Your task to perform on an android device: Show the shopping cart on bestbuy. Search for bose soundlink mini on bestbuy, select the first entry, add it to the cart, then select checkout. Image 0: 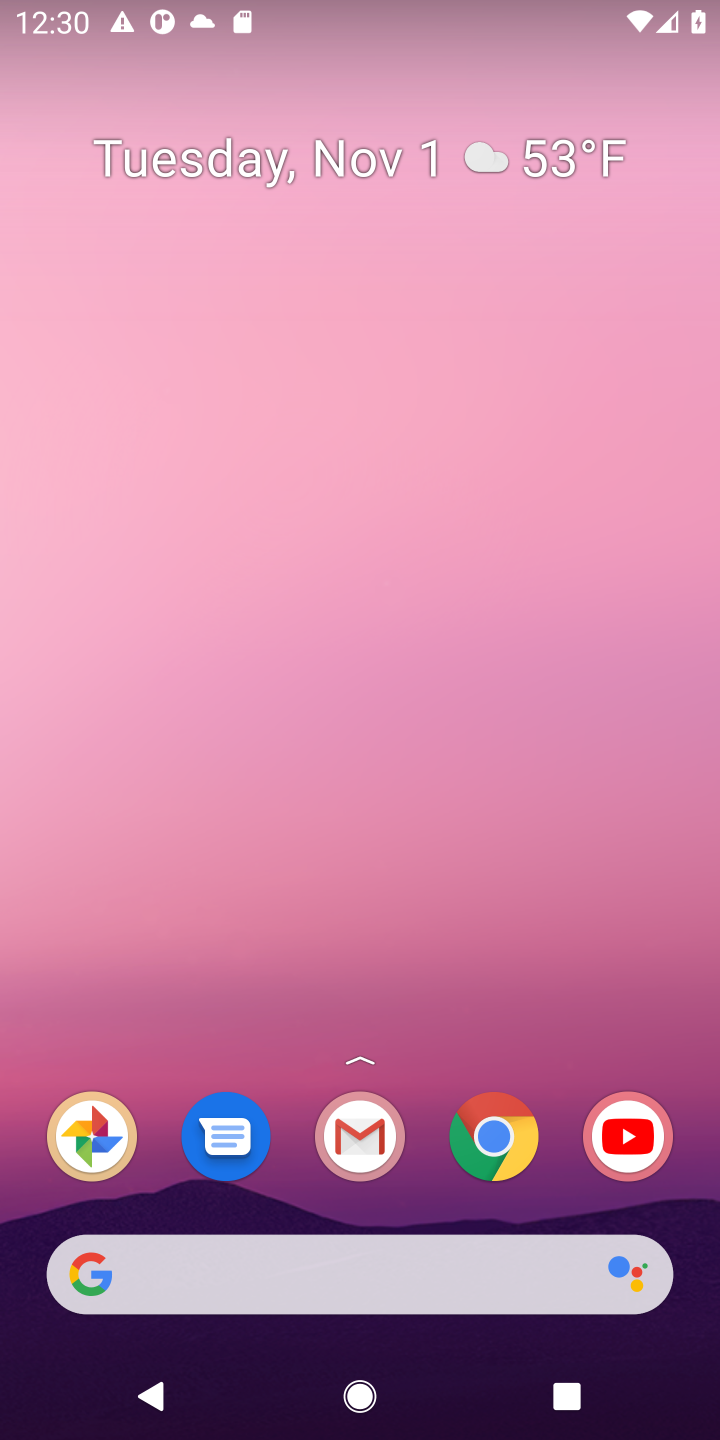
Step 0: press home button
Your task to perform on an android device: Show the shopping cart on bestbuy. Search for bose soundlink mini on bestbuy, select the first entry, add it to the cart, then select checkout. Image 1: 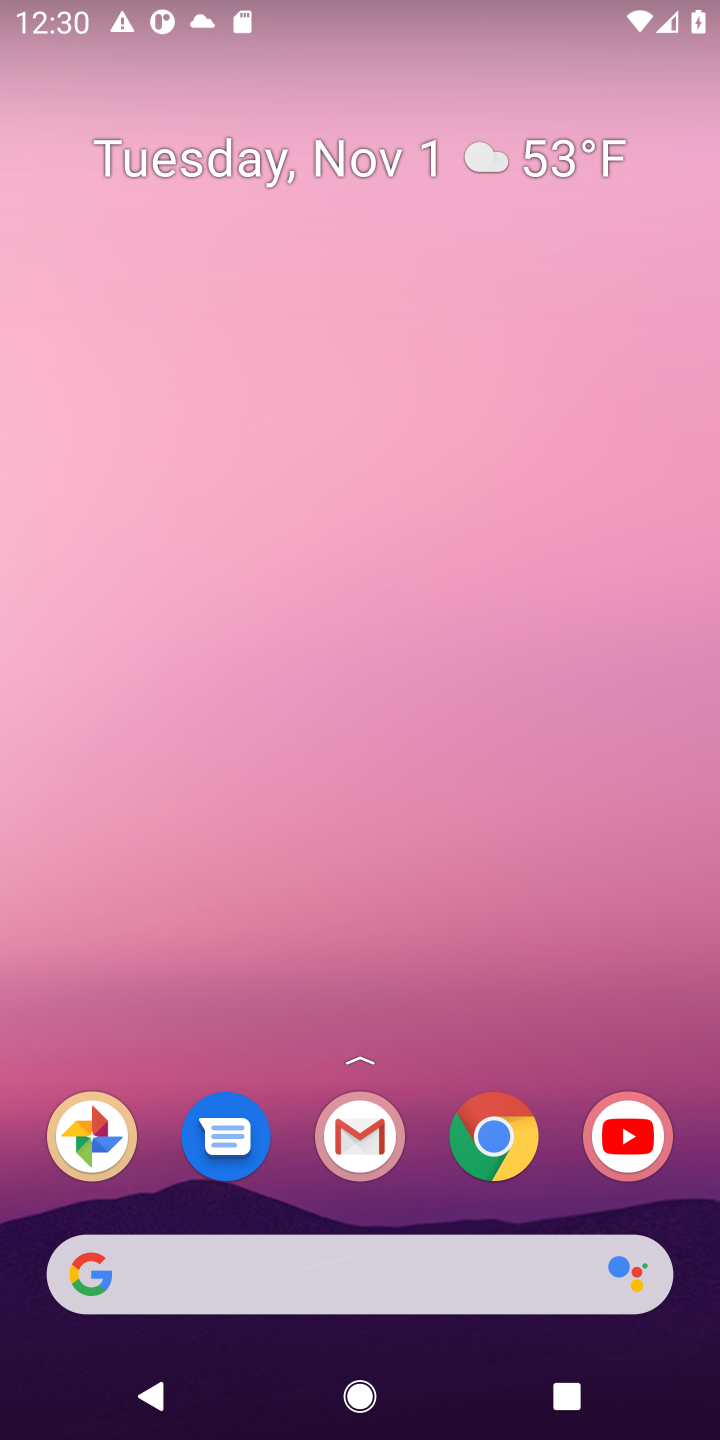
Step 1: press home button
Your task to perform on an android device: Show the shopping cart on bestbuy. Search for bose soundlink mini on bestbuy, select the first entry, add it to the cart, then select checkout. Image 2: 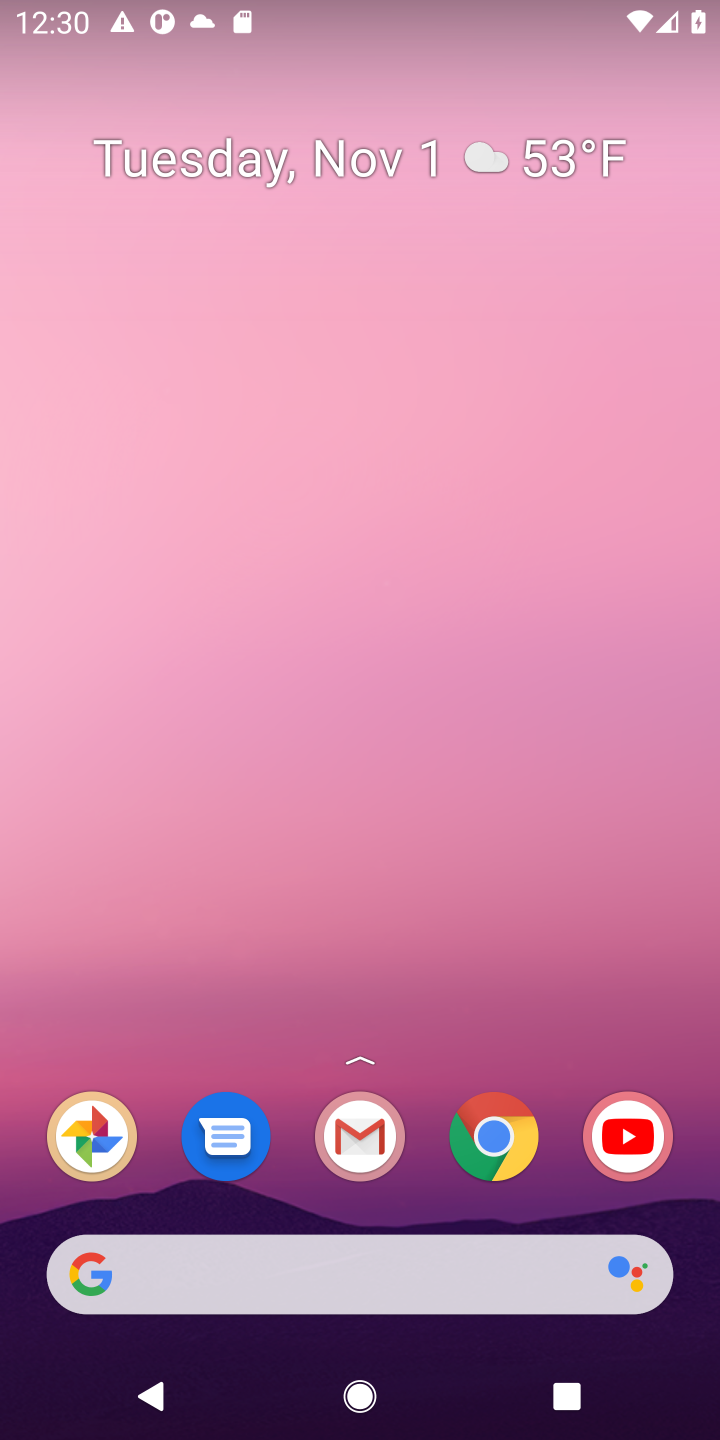
Step 2: click (145, 1265)
Your task to perform on an android device: Show the shopping cart on bestbuy. Search for bose soundlink mini on bestbuy, select the first entry, add it to the cart, then select checkout. Image 3: 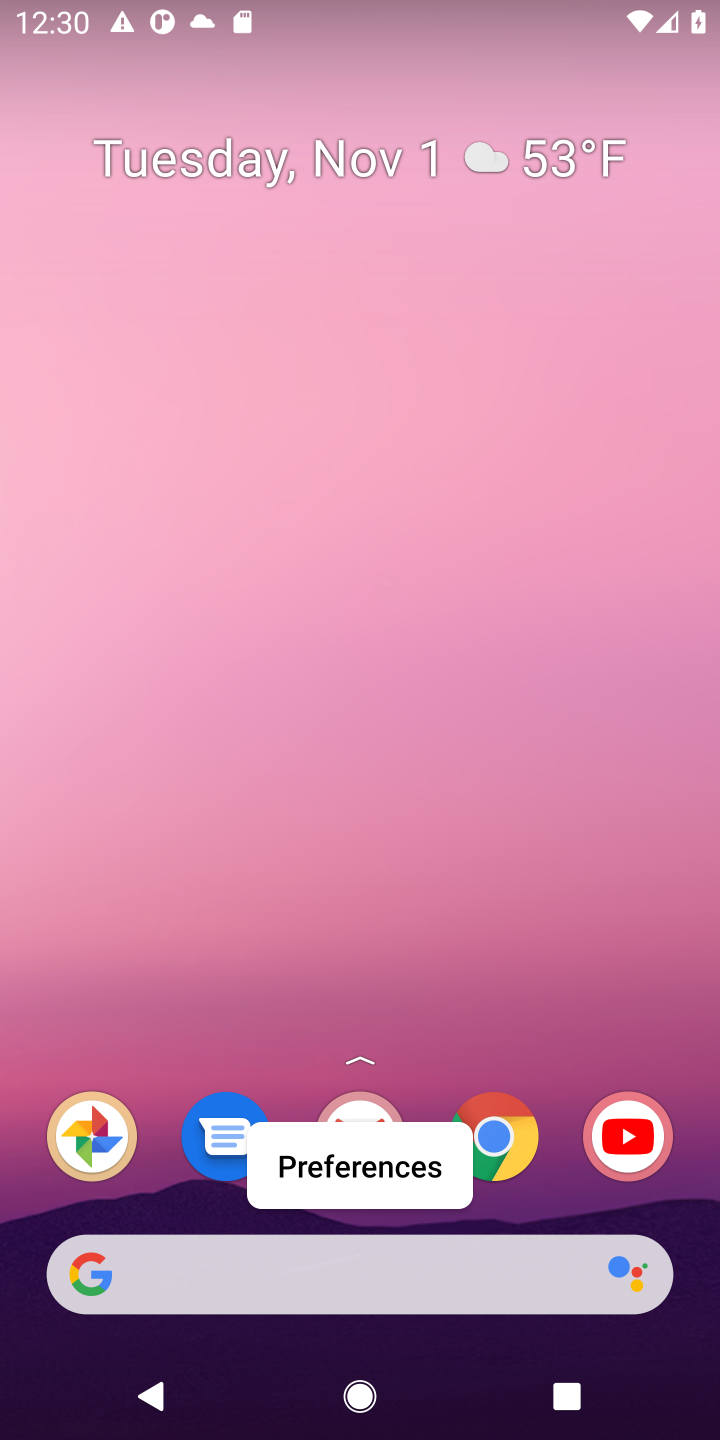
Step 3: click (145, 1265)
Your task to perform on an android device: Show the shopping cart on bestbuy. Search for bose soundlink mini on bestbuy, select the first entry, add it to the cart, then select checkout. Image 4: 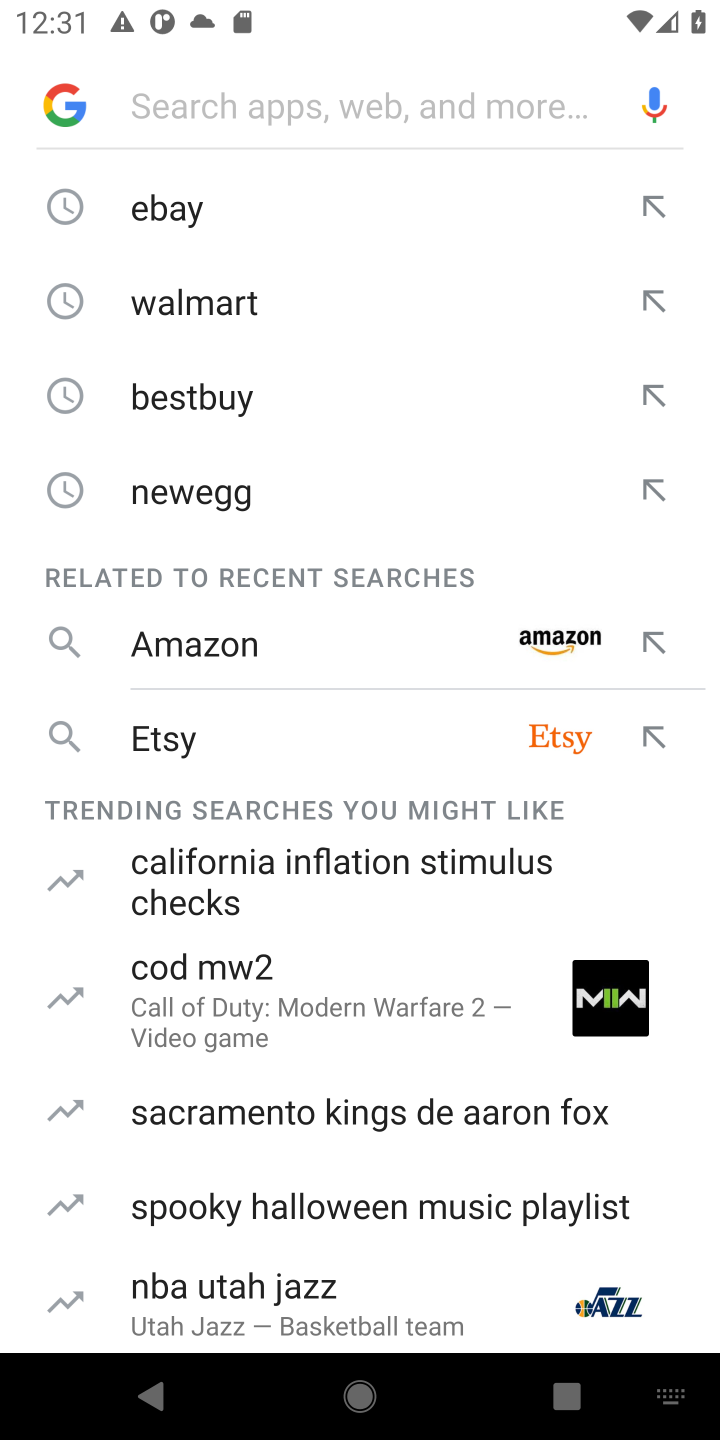
Step 4: type "bestbuy"
Your task to perform on an android device: Show the shopping cart on bestbuy. Search for bose soundlink mini on bestbuy, select the first entry, add it to the cart, then select checkout. Image 5: 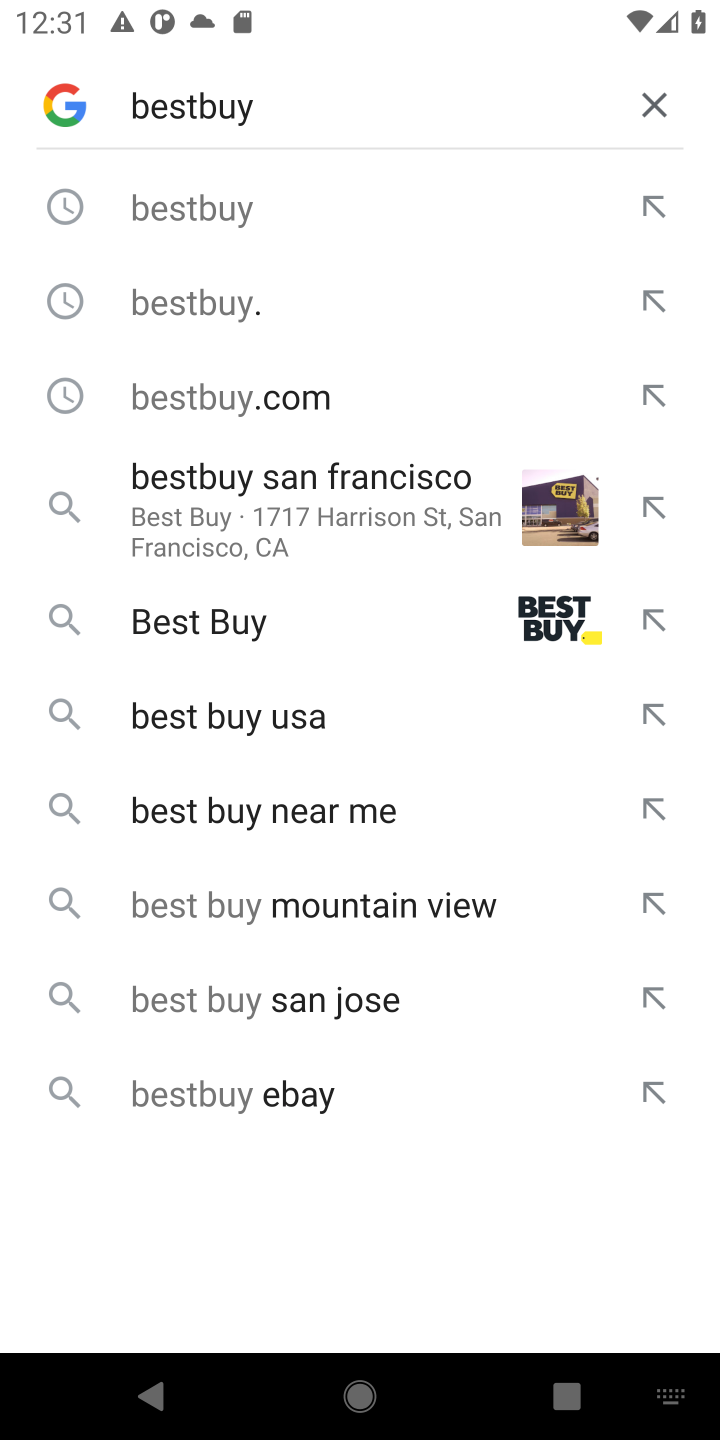
Step 5: press enter
Your task to perform on an android device: Show the shopping cart on bestbuy. Search for bose soundlink mini on bestbuy, select the first entry, add it to the cart, then select checkout. Image 6: 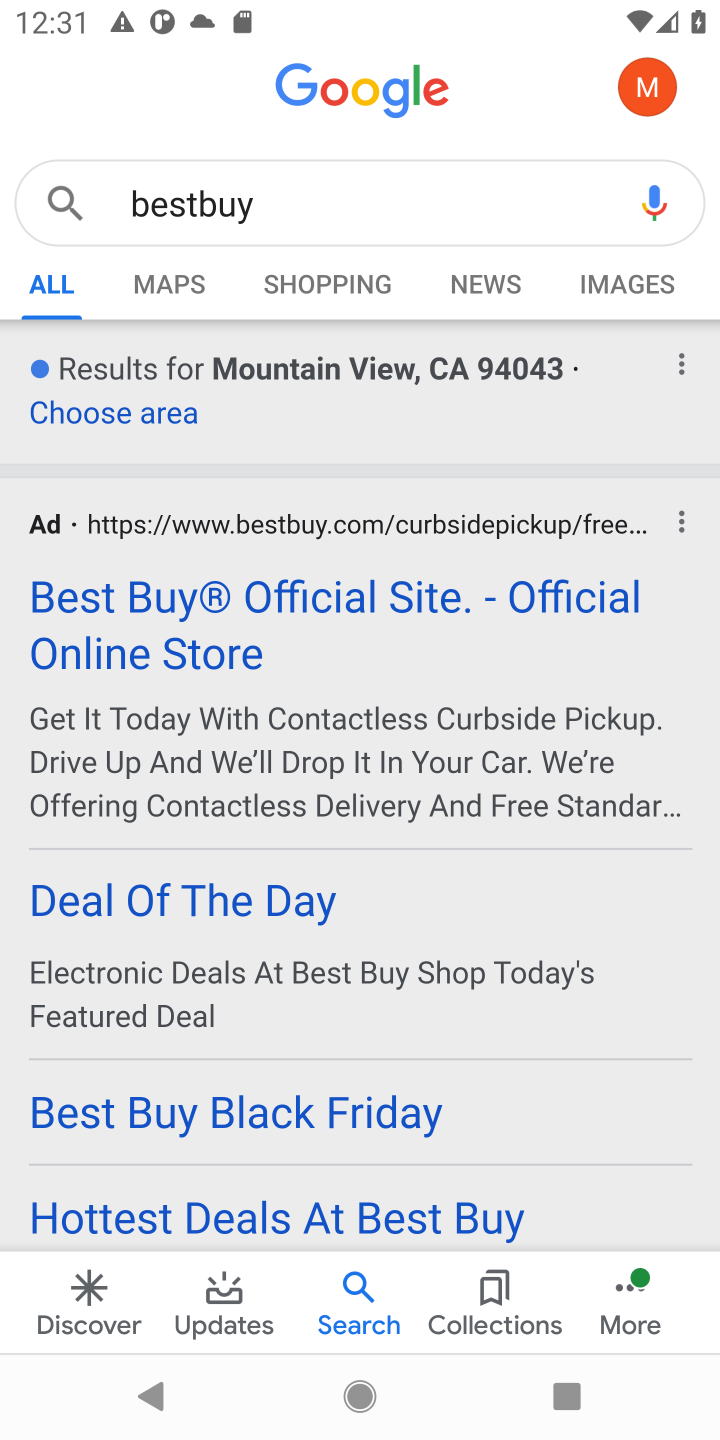
Step 6: click (174, 596)
Your task to perform on an android device: Show the shopping cart on bestbuy. Search for bose soundlink mini on bestbuy, select the first entry, add it to the cart, then select checkout. Image 7: 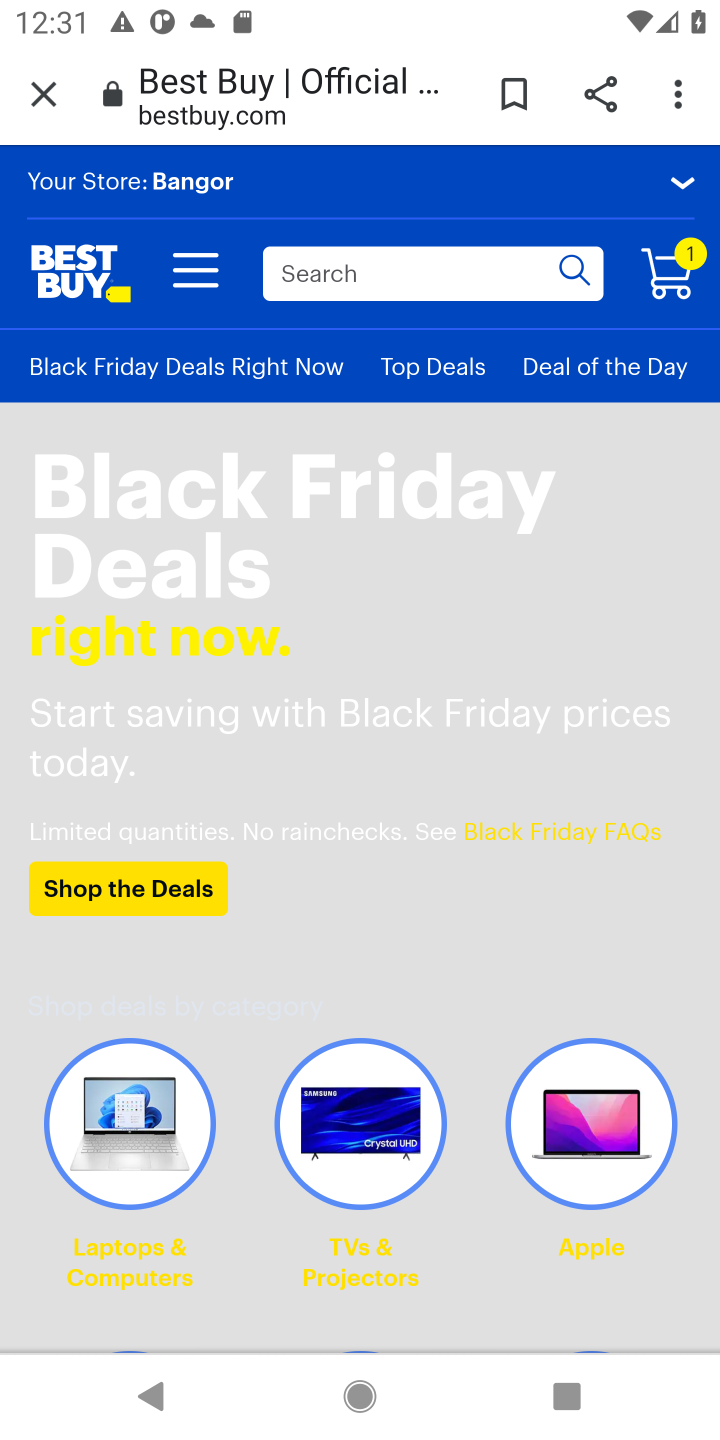
Step 7: click (326, 272)
Your task to perform on an android device: Show the shopping cart on bestbuy. Search for bose soundlink mini on bestbuy, select the first entry, add it to the cart, then select checkout. Image 8: 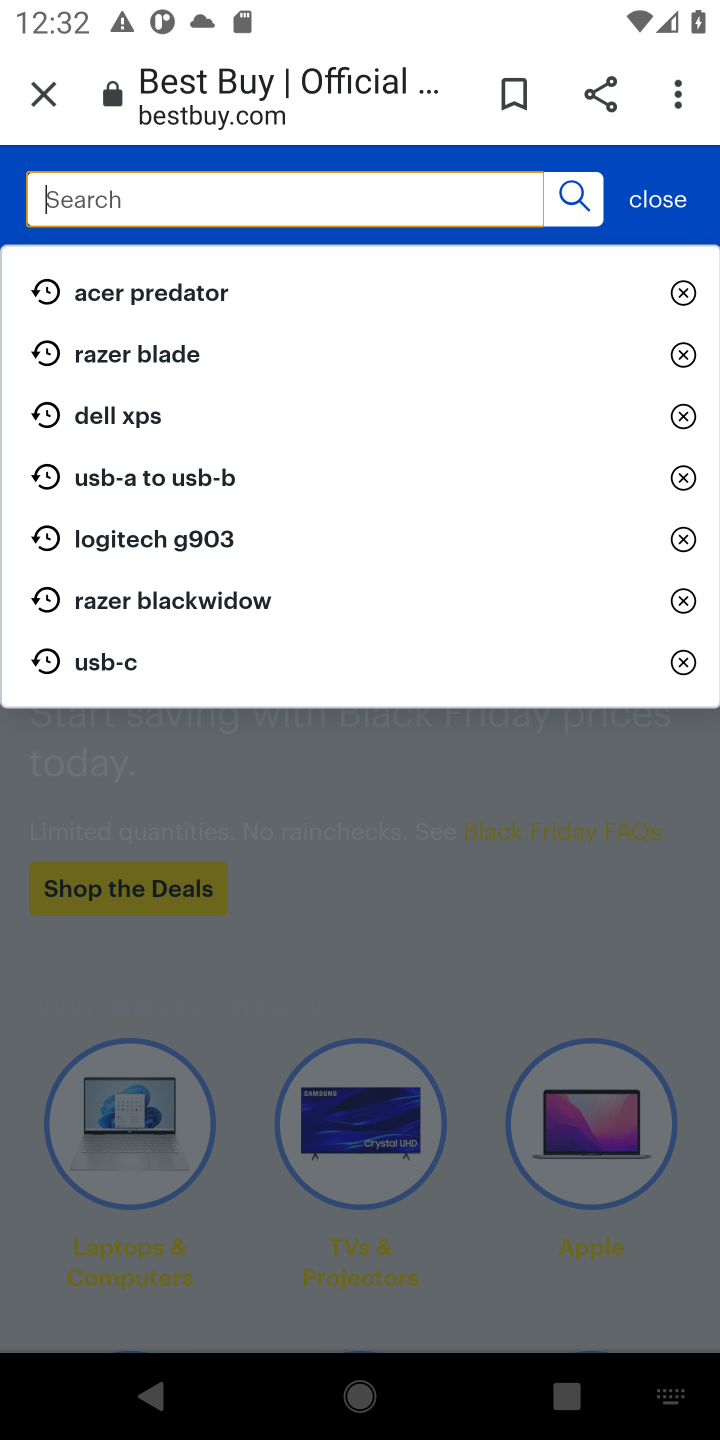
Step 8: type "bose soundlink mini"
Your task to perform on an android device: Show the shopping cart on bestbuy. Search for bose soundlink mini on bestbuy, select the first entry, add it to the cart, then select checkout. Image 9: 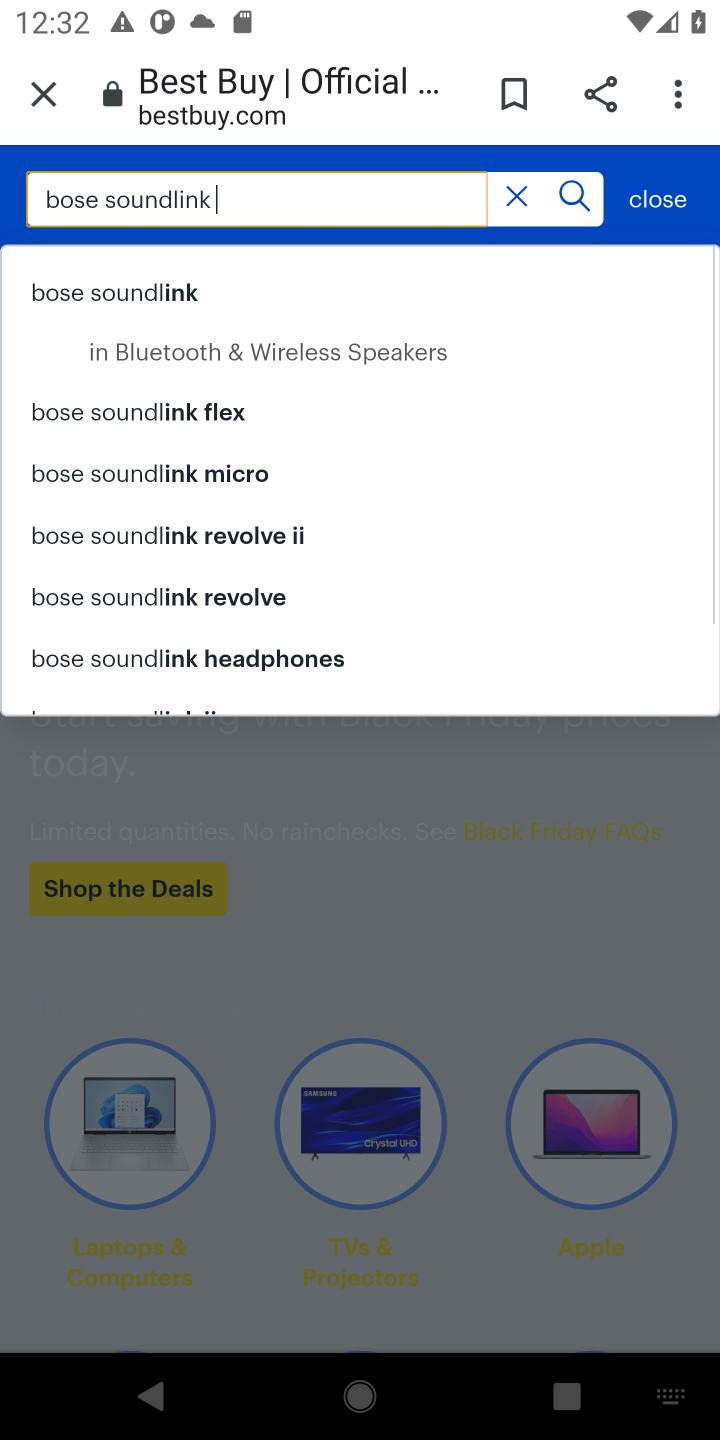
Step 9: press enter
Your task to perform on an android device: Show the shopping cart on bestbuy. Search for bose soundlink mini on bestbuy, select the first entry, add it to the cart, then select checkout. Image 10: 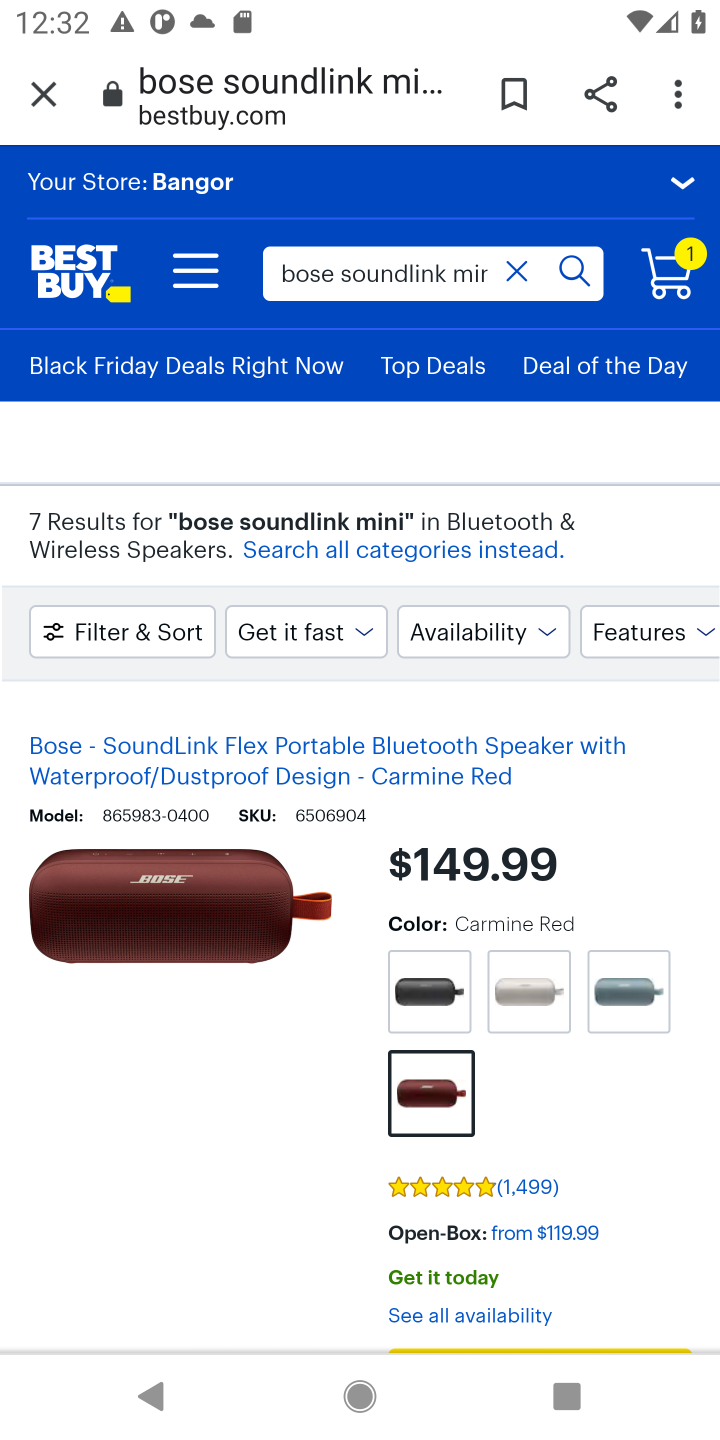
Step 10: drag from (196, 1134) to (245, 769)
Your task to perform on an android device: Show the shopping cart on bestbuy. Search for bose soundlink mini on bestbuy, select the first entry, add it to the cart, then select checkout. Image 11: 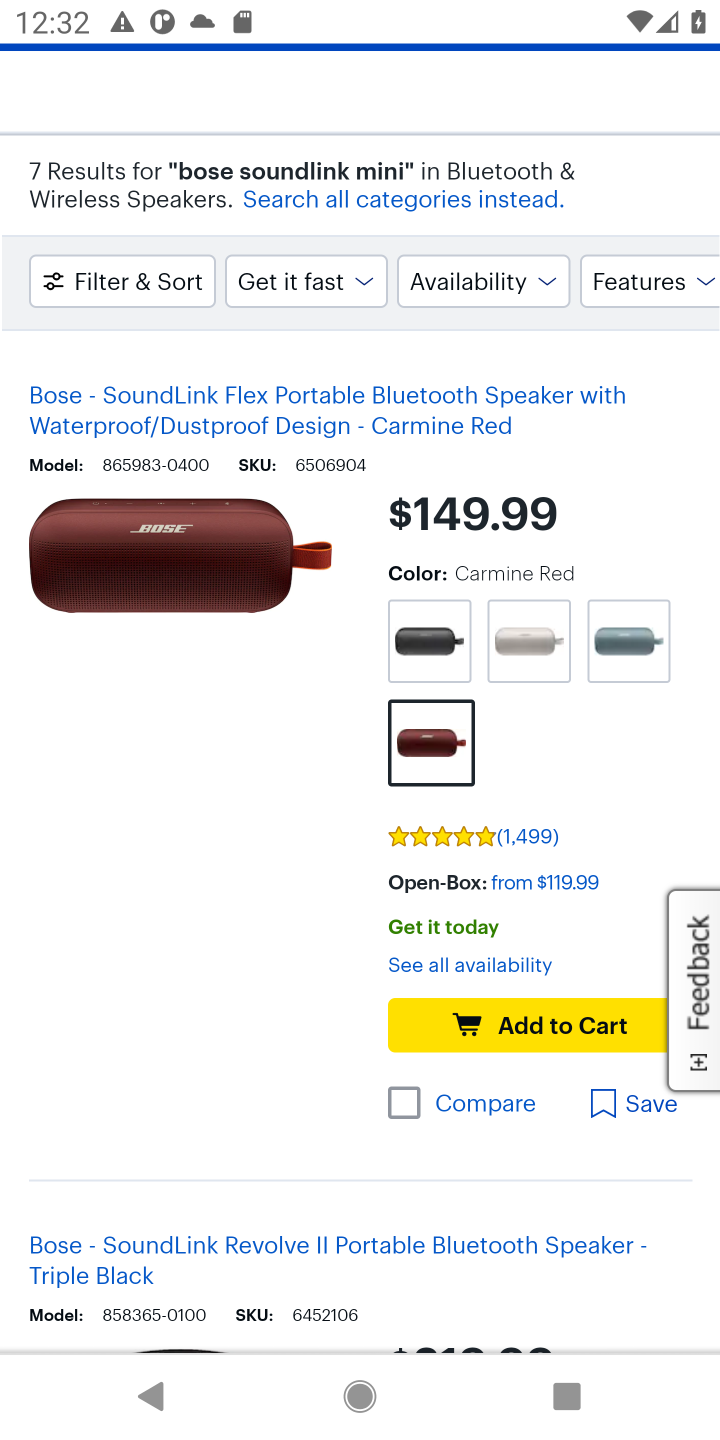
Step 11: drag from (249, 1002) to (293, 604)
Your task to perform on an android device: Show the shopping cart on bestbuy. Search for bose soundlink mini on bestbuy, select the first entry, add it to the cart, then select checkout. Image 12: 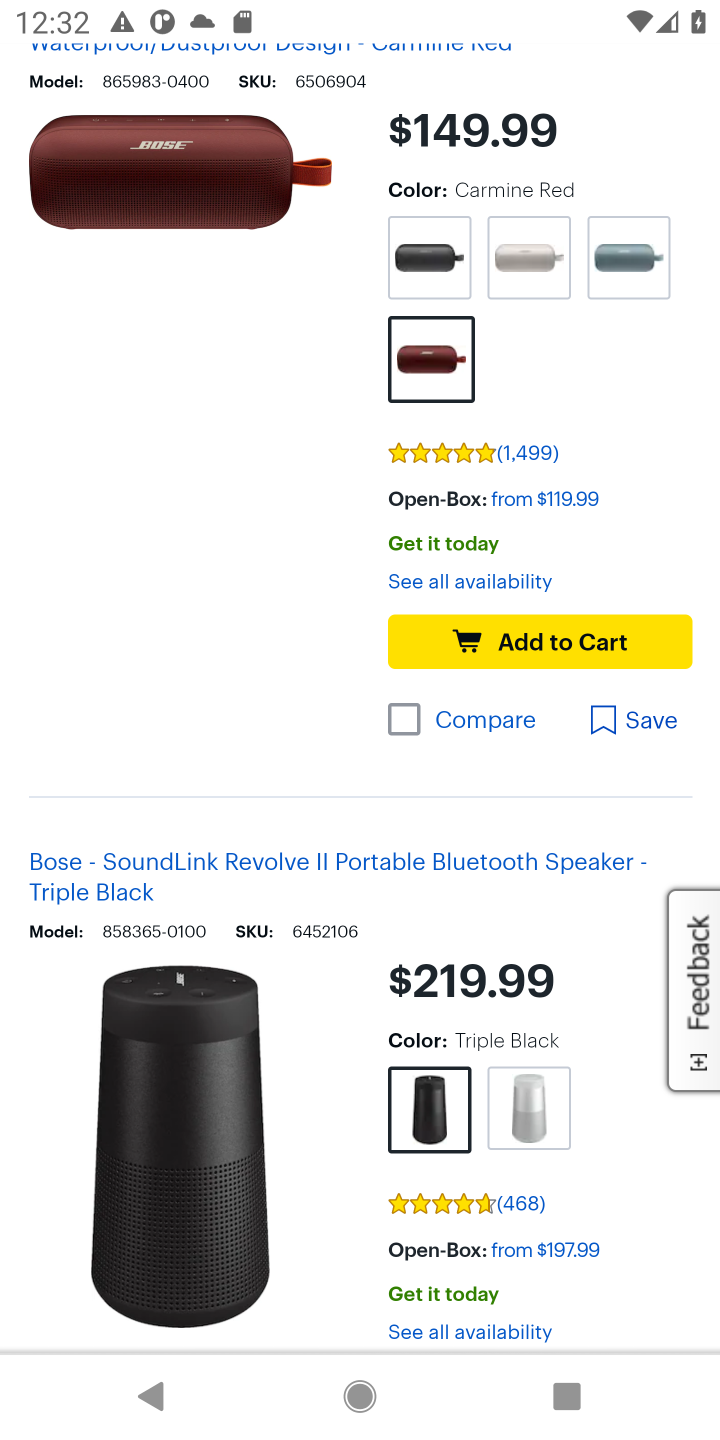
Step 12: click (539, 720)
Your task to perform on an android device: Show the shopping cart on bestbuy. Search for bose soundlink mini on bestbuy, select the first entry, add it to the cart, then select checkout. Image 13: 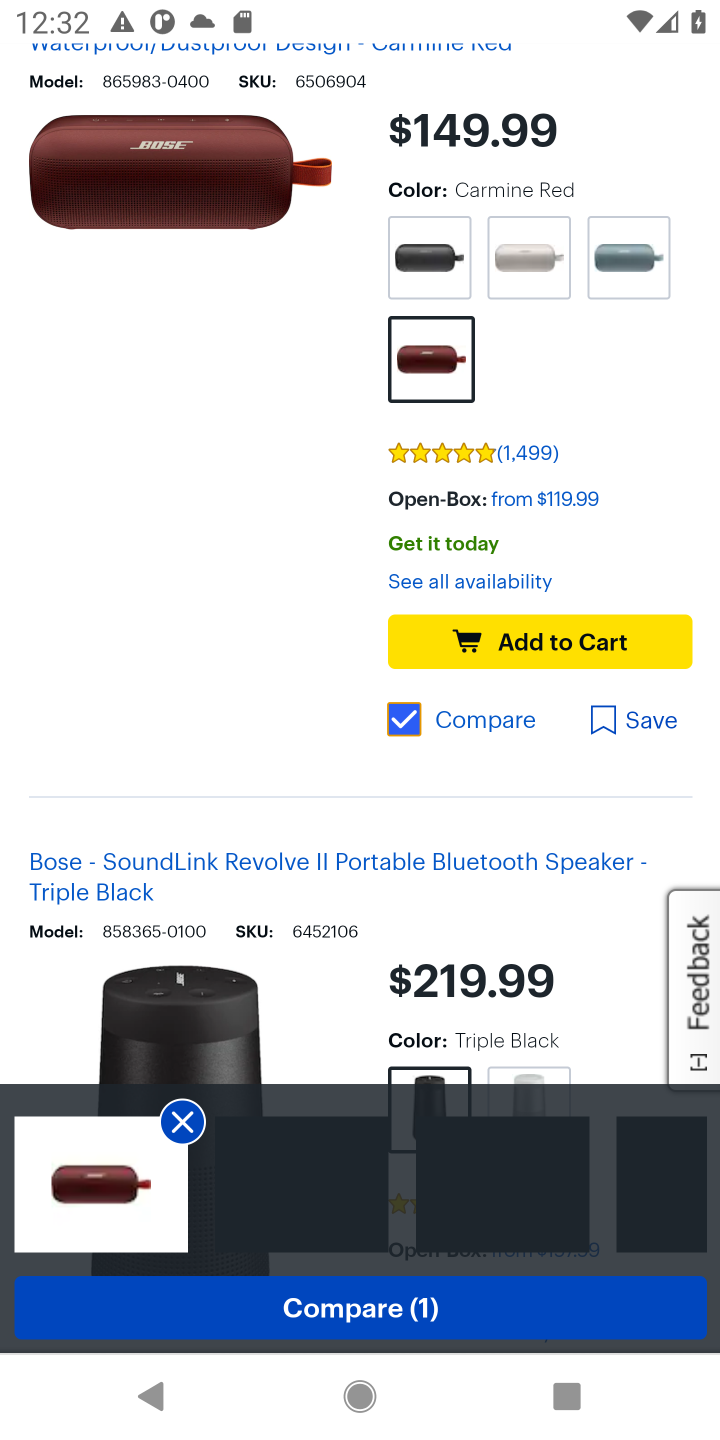
Step 13: click (550, 640)
Your task to perform on an android device: Show the shopping cart on bestbuy. Search for bose soundlink mini on bestbuy, select the first entry, add it to the cart, then select checkout. Image 14: 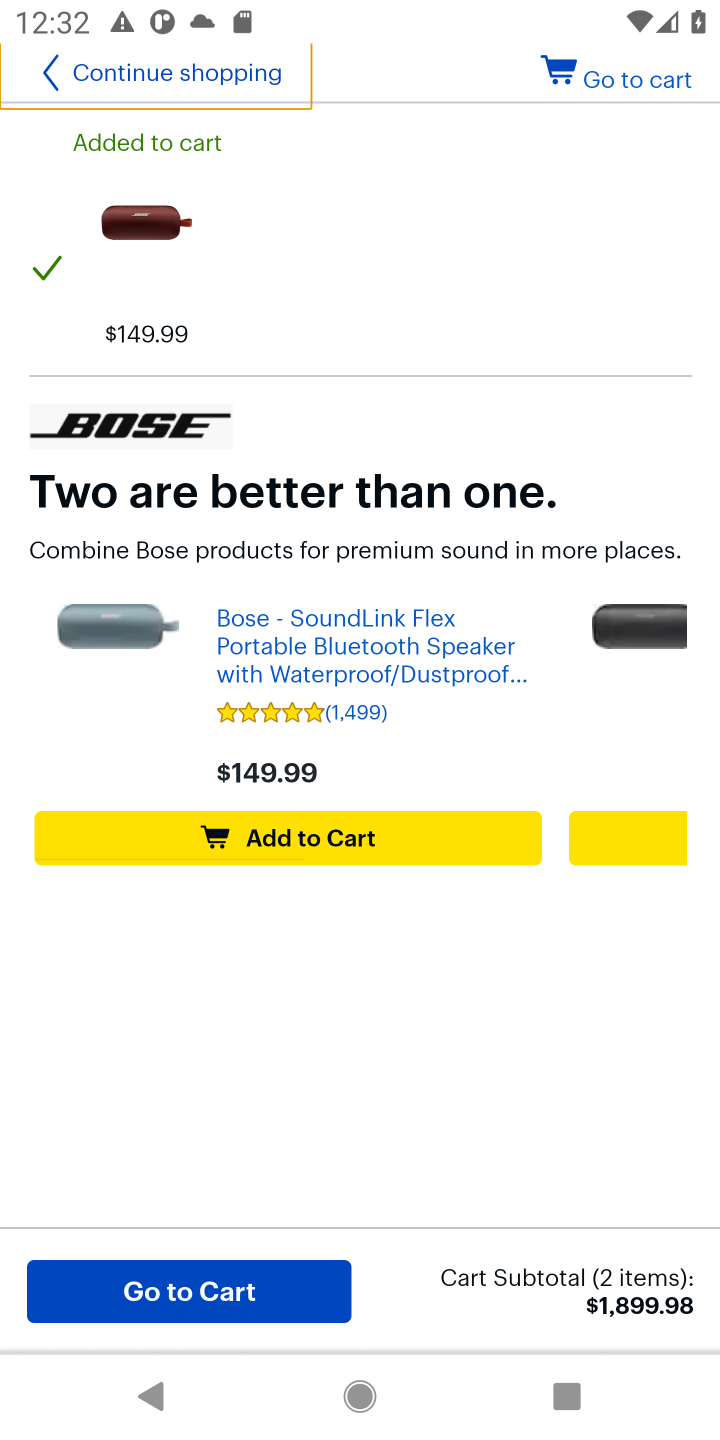
Step 14: click (154, 1286)
Your task to perform on an android device: Show the shopping cart on bestbuy. Search for bose soundlink mini on bestbuy, select the first entry, add it to the cart, then select checkout. Image 15: 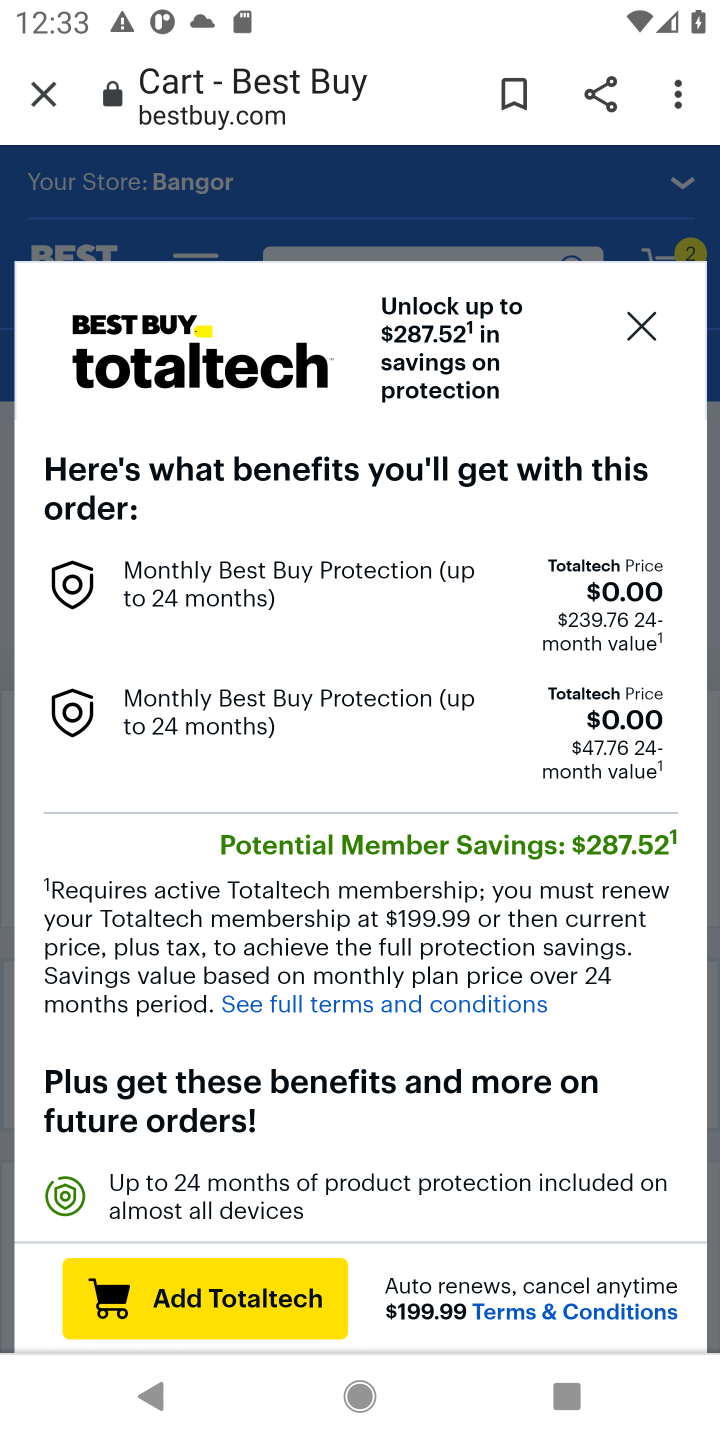
Step 15: click (642, 331)
Your task to perform on an android device: Show the shopping cart on bestbuy. Search for bose soundlink mini on bestbuy, select the first entry, add it to the cart, then select checkout. Image 16: 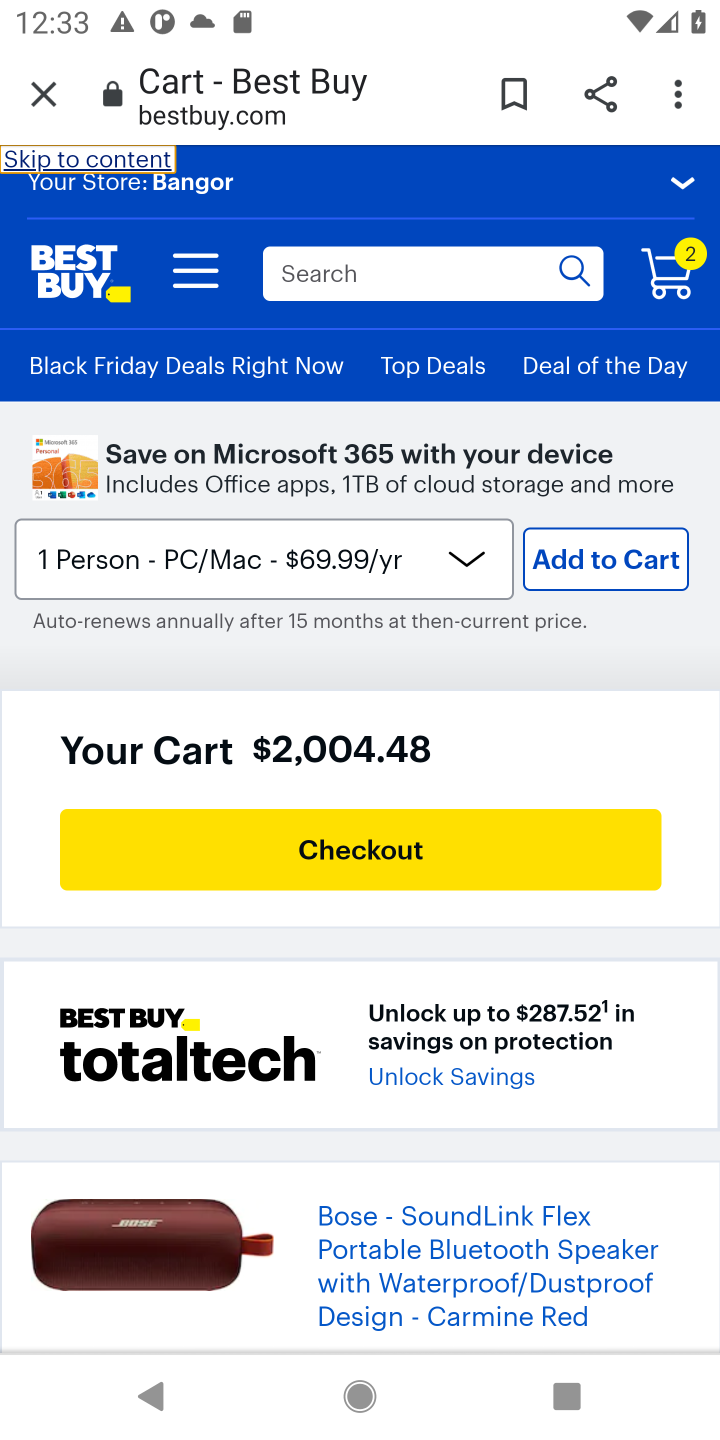
Step 16: click (501, 828)
Your task to perform on an android device: Show the shopping cart on bestbuy. Search for bose soundlink mini on bestbuy, select the first entry, add it to the cart, then select checkout. Image 17: 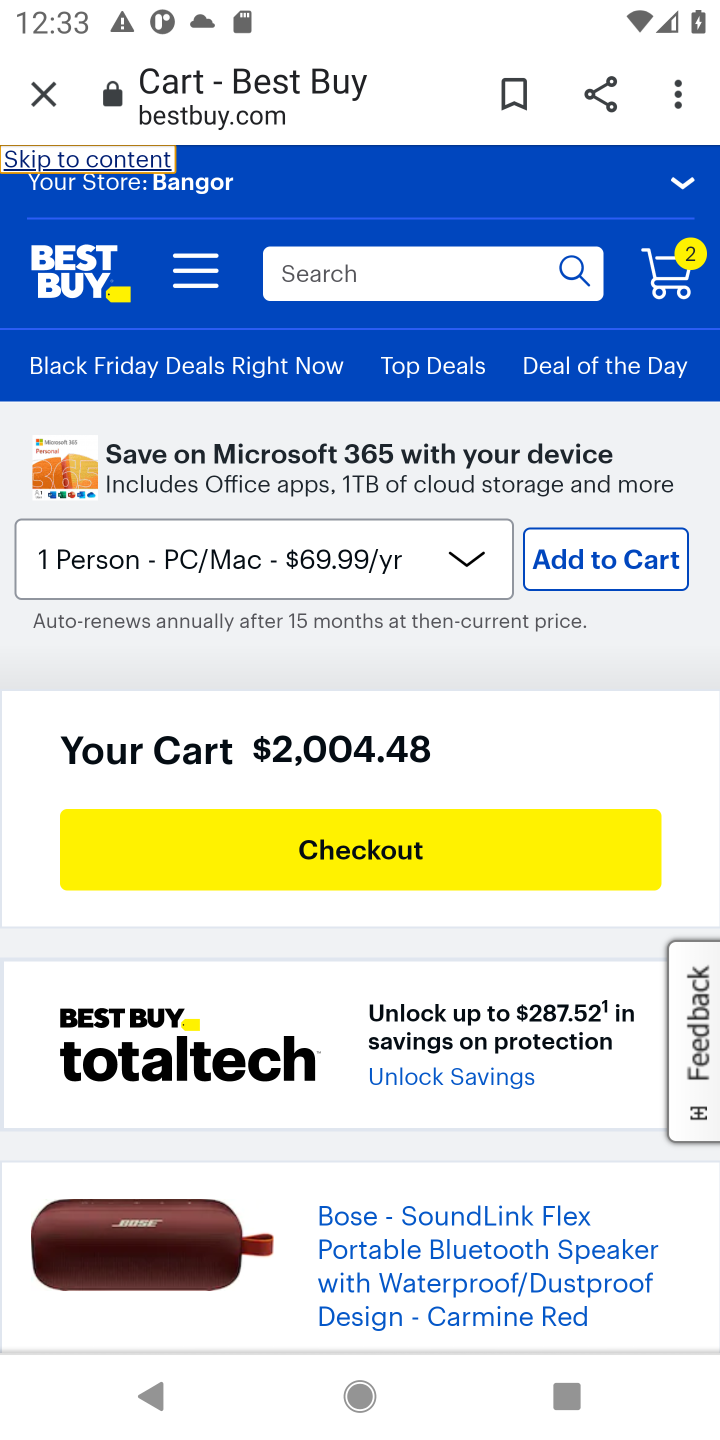
Step 17: click (377, 858)
Your task to perform on an android device: Show the shopping cart on bestbuy. Search for bose soundlink mini on bestbuy, select the first entry, add it to the cart, then select checkout. Image 18: 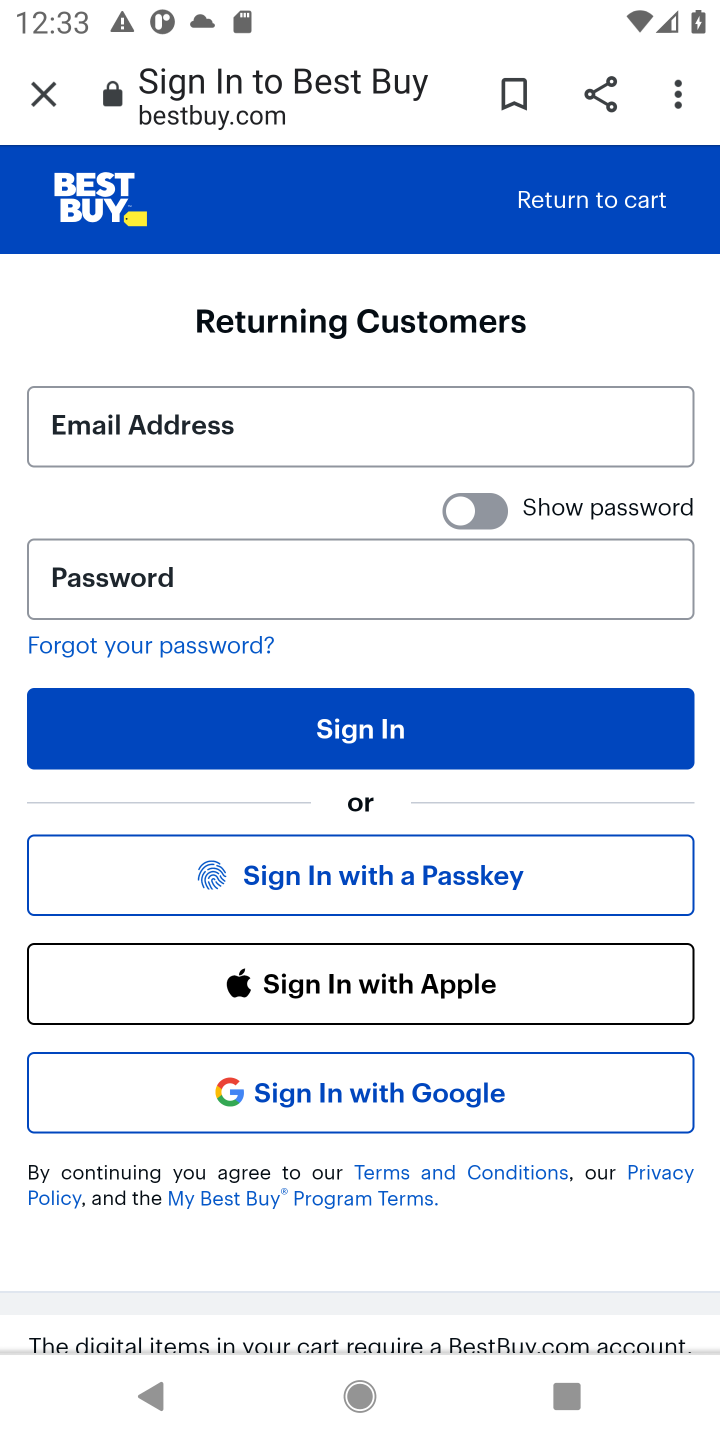
Step 18: task complete